Your task to perform on an android device: turn off notifications in google photos Image 0: 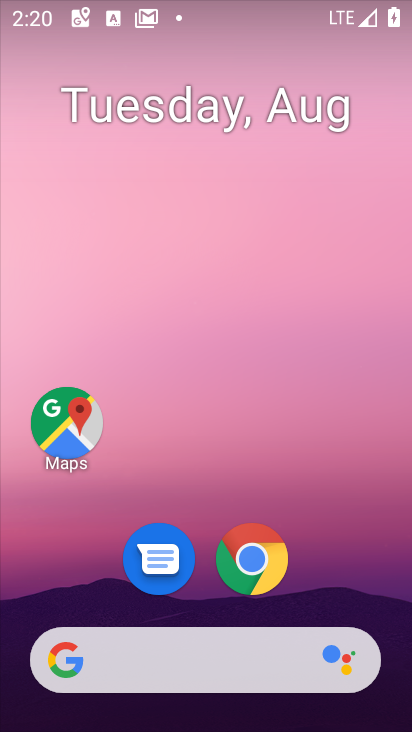
Step 0: drag from (197, 441) to (164, 135)
Your task to perform on an android device: turn off notifications in google photos Image 1: 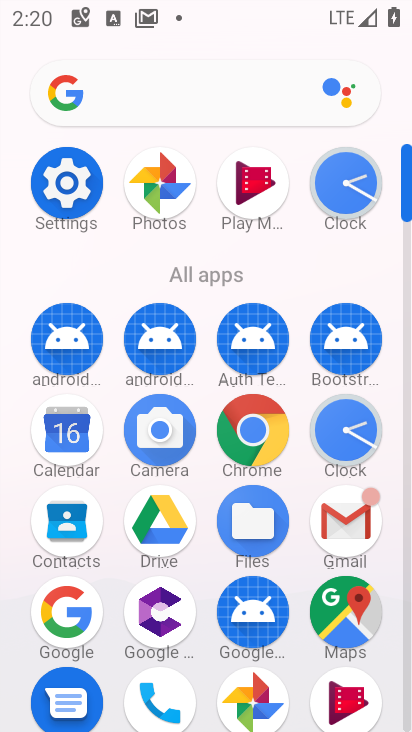
Step 1: click (157, 167)
Your task to perform on an android device: turn off notifications in google photos Image 2: 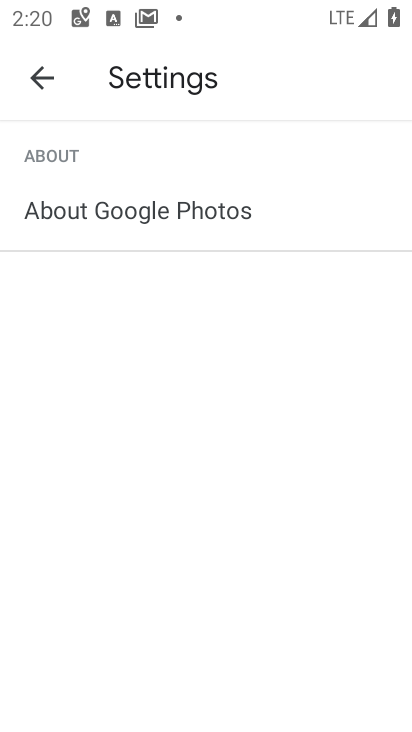
Step 2: click (53, 70)
Your task to perform on an android device: turn off notifications in google photos Image 3: 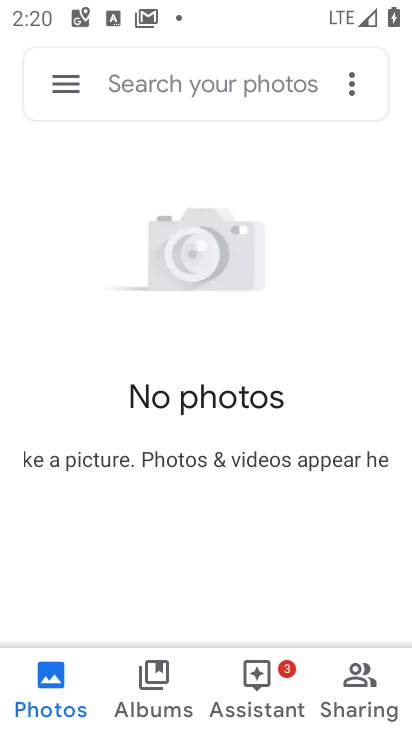
Step 3: click (53, 70)
Your task to perform on an android device: turn off notifications in google photos Image 4: 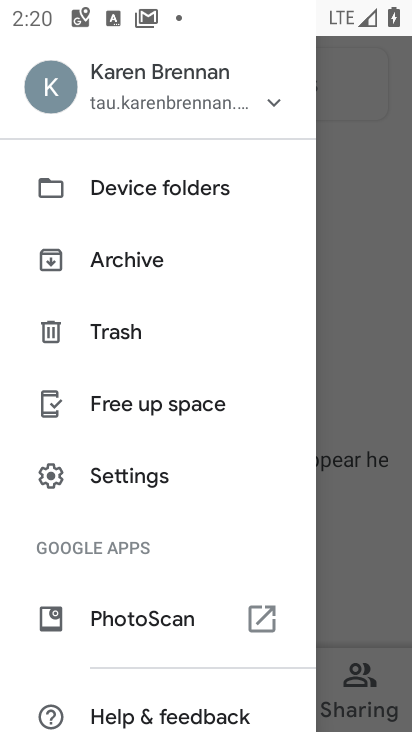
Step 4: drag from (136, 576) to (141, 302)
Your task to perform on an android device: turn off notifications in google photos Image 5: 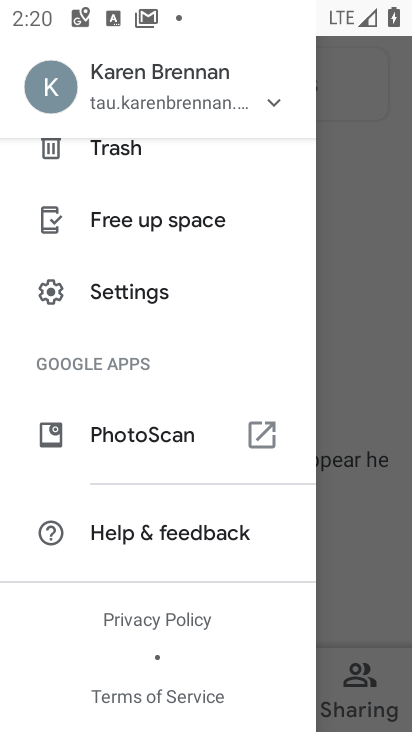
Step 5: click (141, 302)
Your task to perform on an android device: turn off notifications in google photos Image 6: 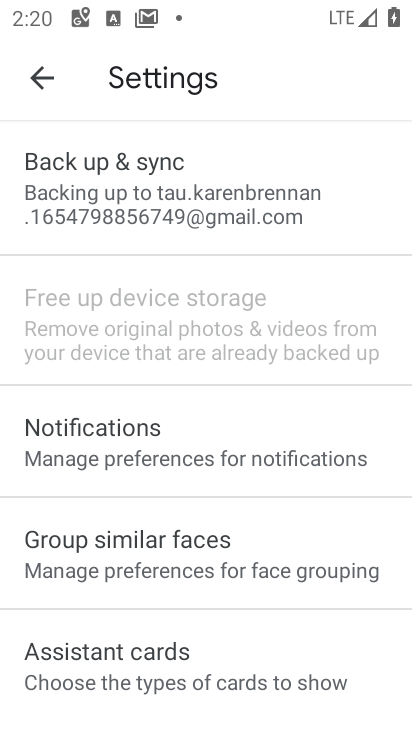
Step 6: click (150, 447)
Your task to perform on an android device: turn off notifications in google photos Image 7: 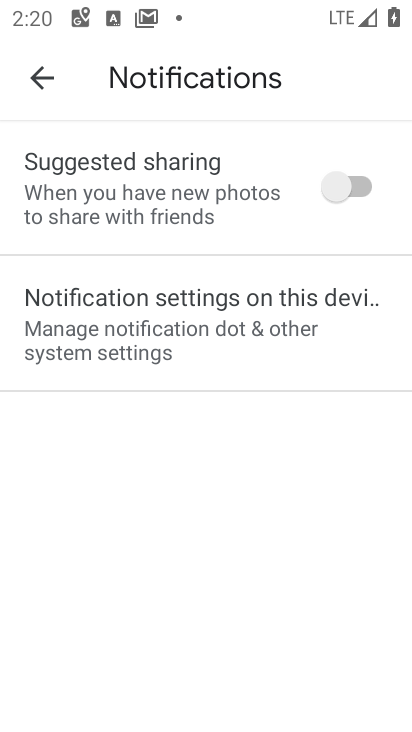
Step 7: click (120, 363)
Your task to perform on an android device: turn off notifications in google photos Image 8: 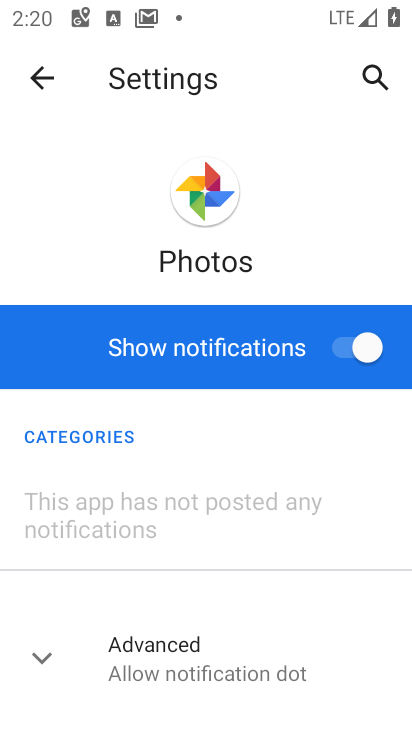
Step 8: click (322, 349)
Your task to perform on an android device: turn off notifications in google photos Image 9: 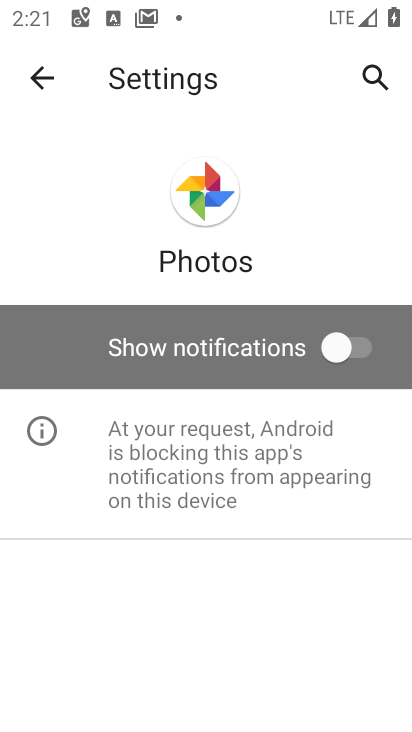
Step 9: task complete